Your task to perform on an android device: turn pop-ups off in chrome Image 0: 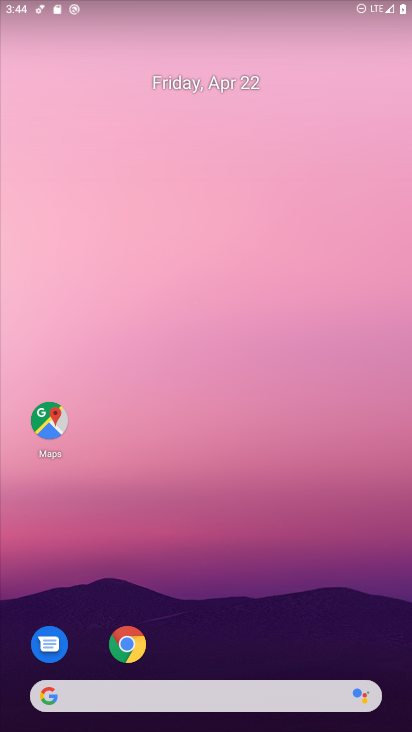
Step 0: click (117, 642)
Your task to perform on an android device: turn pop-ups off in chrome Image 1: 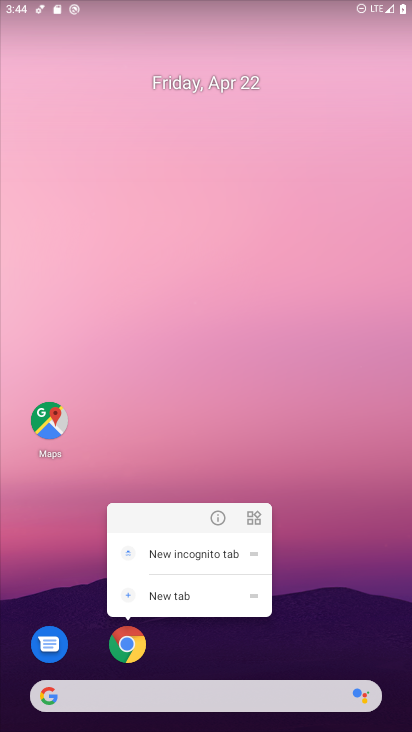
Step 1: click (131, 640)
Your task to perform on an android device: turn pop-ups off in chrome Image 2: 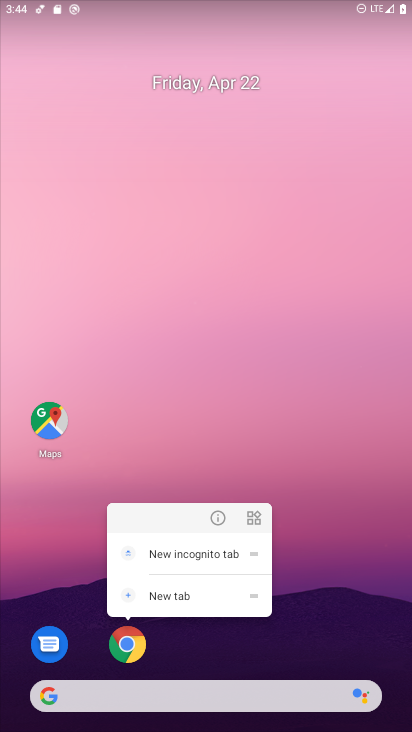
Step 2: drag from (306, 642) to (378, 93)
Your task to perform on an android device: turn pop-ups off in chrome Image 3: 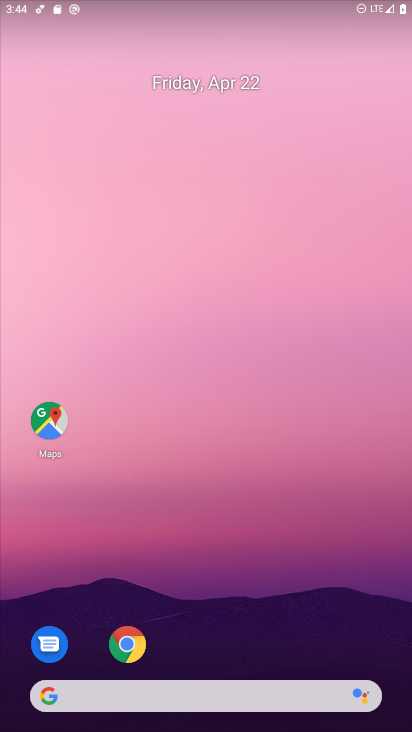
Step 3: drag from (280, 522) to (269, 90)
Your task to perform on an android device: turn pop-ups off in chrome Image 4: 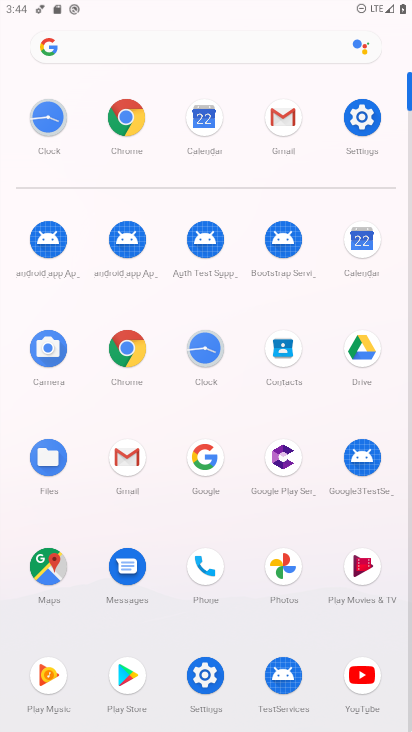
Step 4: click (123, 359)
Your task to perform on an android device: turn pop-ups off in chrome Image 5: 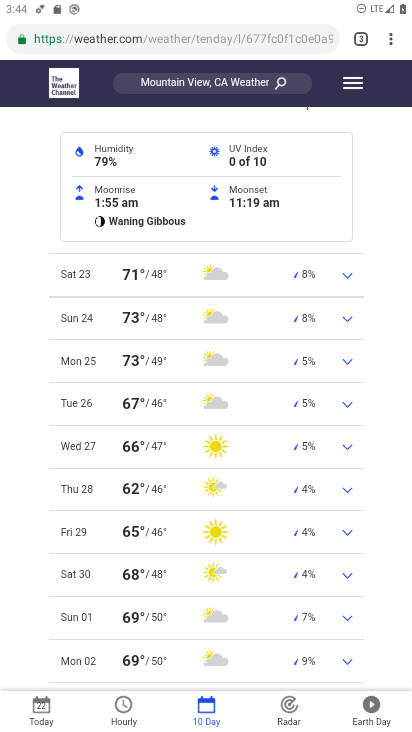
Step 5: drag from (391, 32) to (264, 517)
Your task to perform on an android device: turn pop-ups off in chrome Image 6: 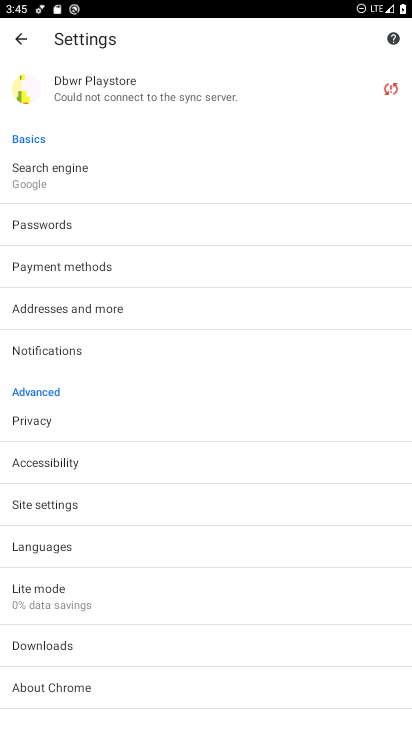
Step 6: click (68, 499)
Your task to perform on an android device: turn pop-ups off in chrome Image 7: 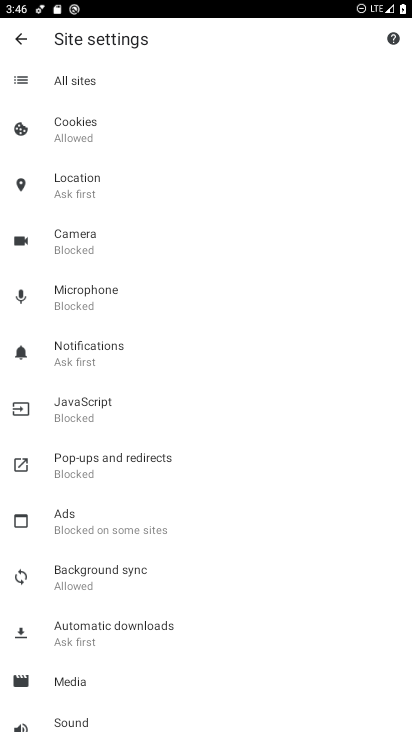
Step 7: click (123, 466)
Your task to perform on an android device: turn pop-ups off in chrome Image 8: 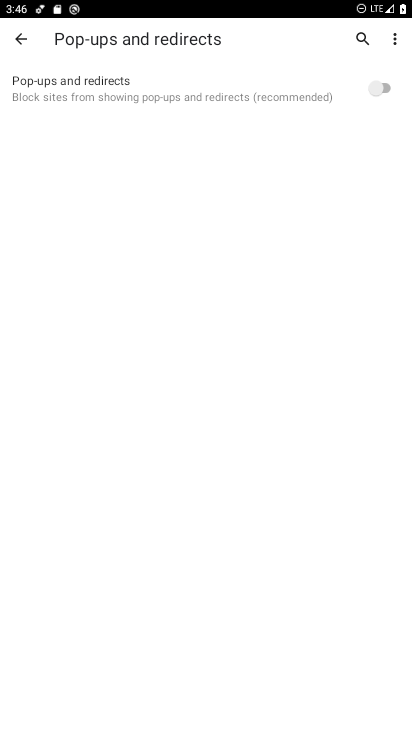
Step 8: task complete